Your task to perform on an android device: Open eBay Image 0: 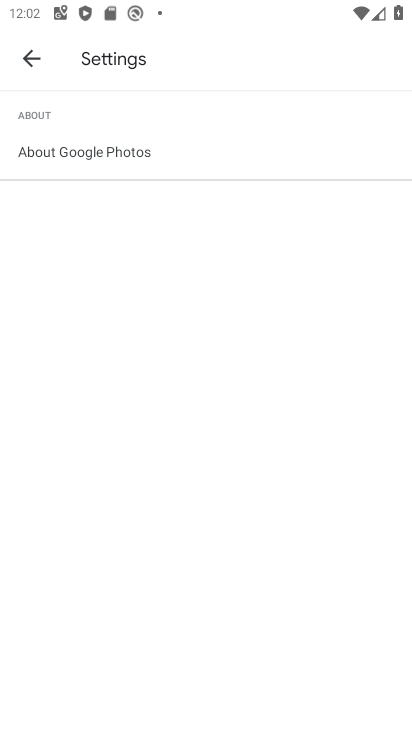
Step 0: press home button
Your task to perform on an android device: Open eBay Image 1: 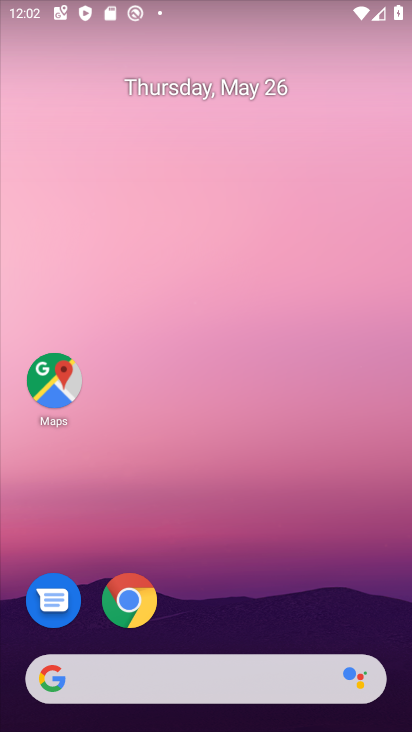
Step 1: click (269, 601)
Your task to perform on an android device: Open eBay Image 2: 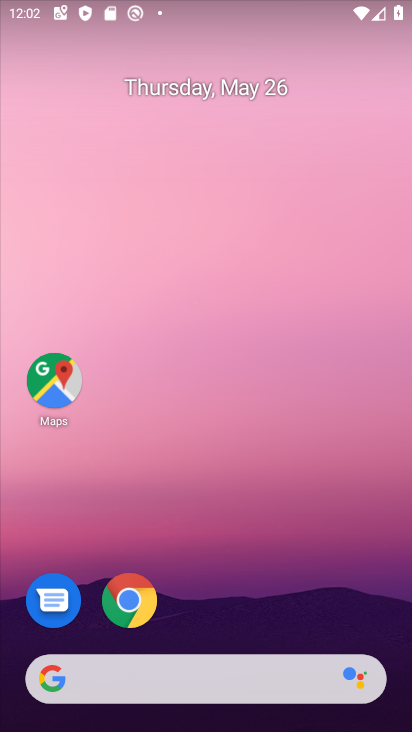
Step 2: click (138, 600)
Your task to perform on an android device: Open eBay Image 3: 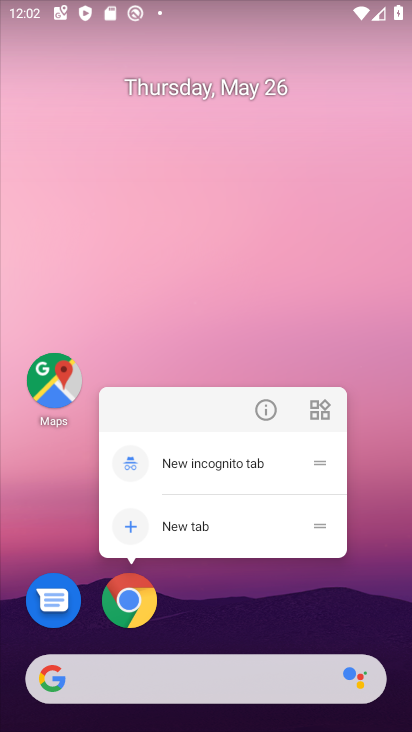
Step 3: click (139, 599)
Your task to perform on an android device: Open eBay Image 4: 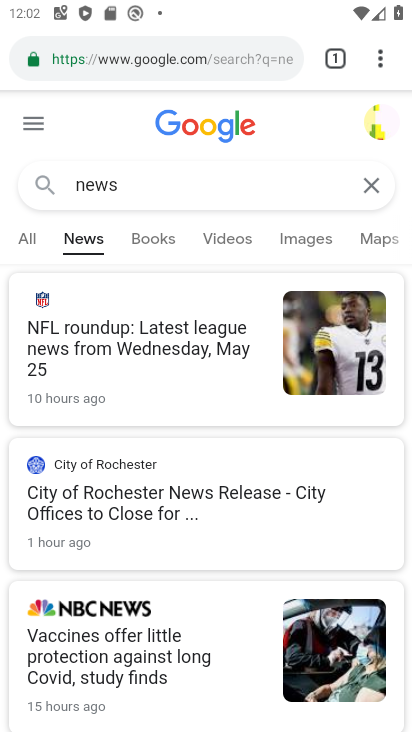
Step 4: click (234, 57)
Your task to perform on an android device: Open eBay Image 5: 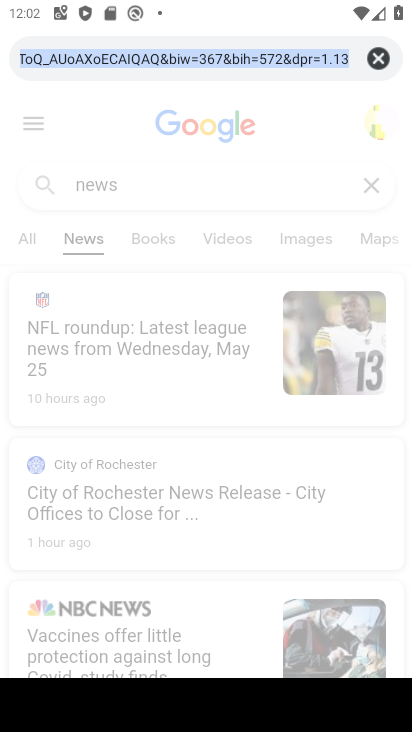
Step 5: type "ebay"
Your task to perform on an android device: Open eBay Image 6: 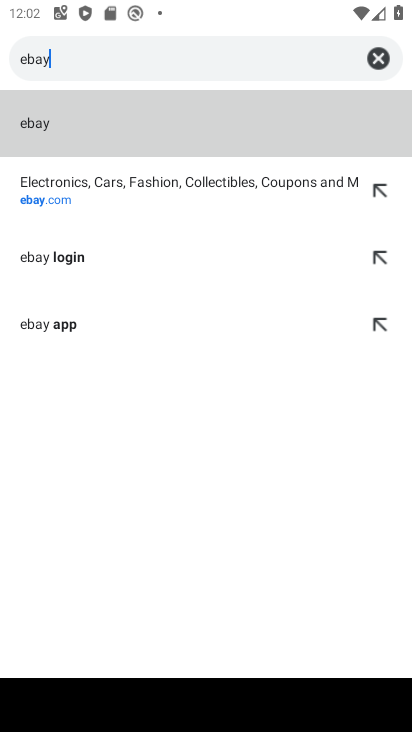
Step 6: click (49, 202)
Your task to perform on an android device: Open eBay Image 7: 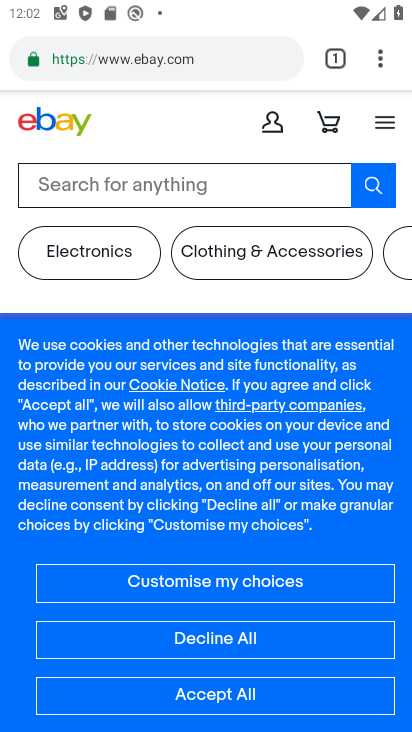
Step 7: task complete